Your task to perform on an android device: Open maps Image 0: 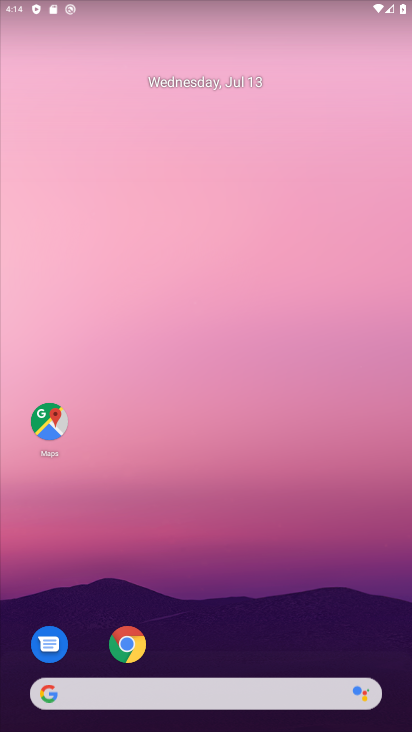
Step 0: click (46, 423)
Your task to perform on an android device: Open maps Image 1: 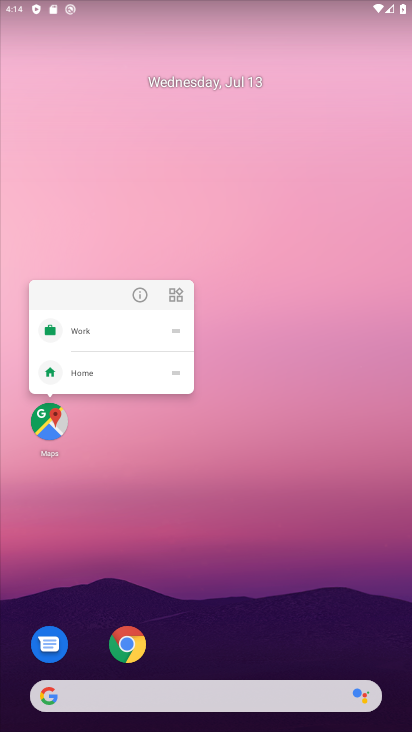
Step 1: click (46, 423)
Your task to perform on an android device: Open maps Image 2: 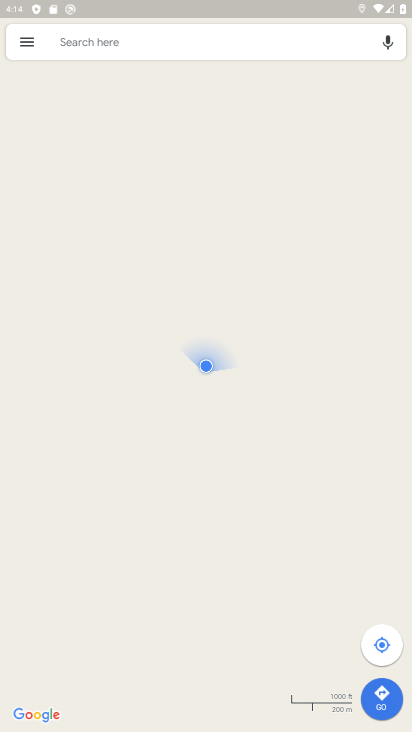
Step 2: task complete